Your task to perform on an android device: uninstall "Instagram" Image 0: 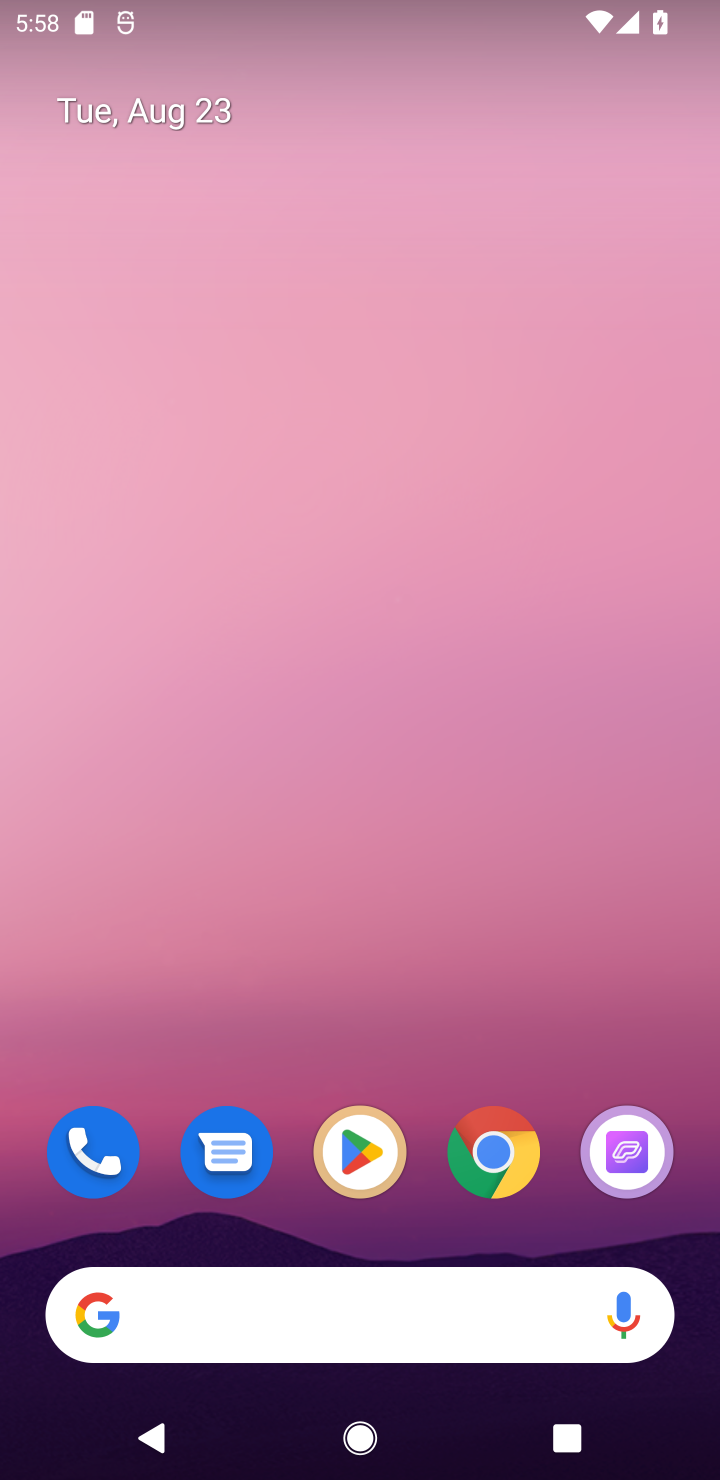
Step 0: click (362, 1150)
Your task to perform on an android device: uninstall "Instagram" Image 1: 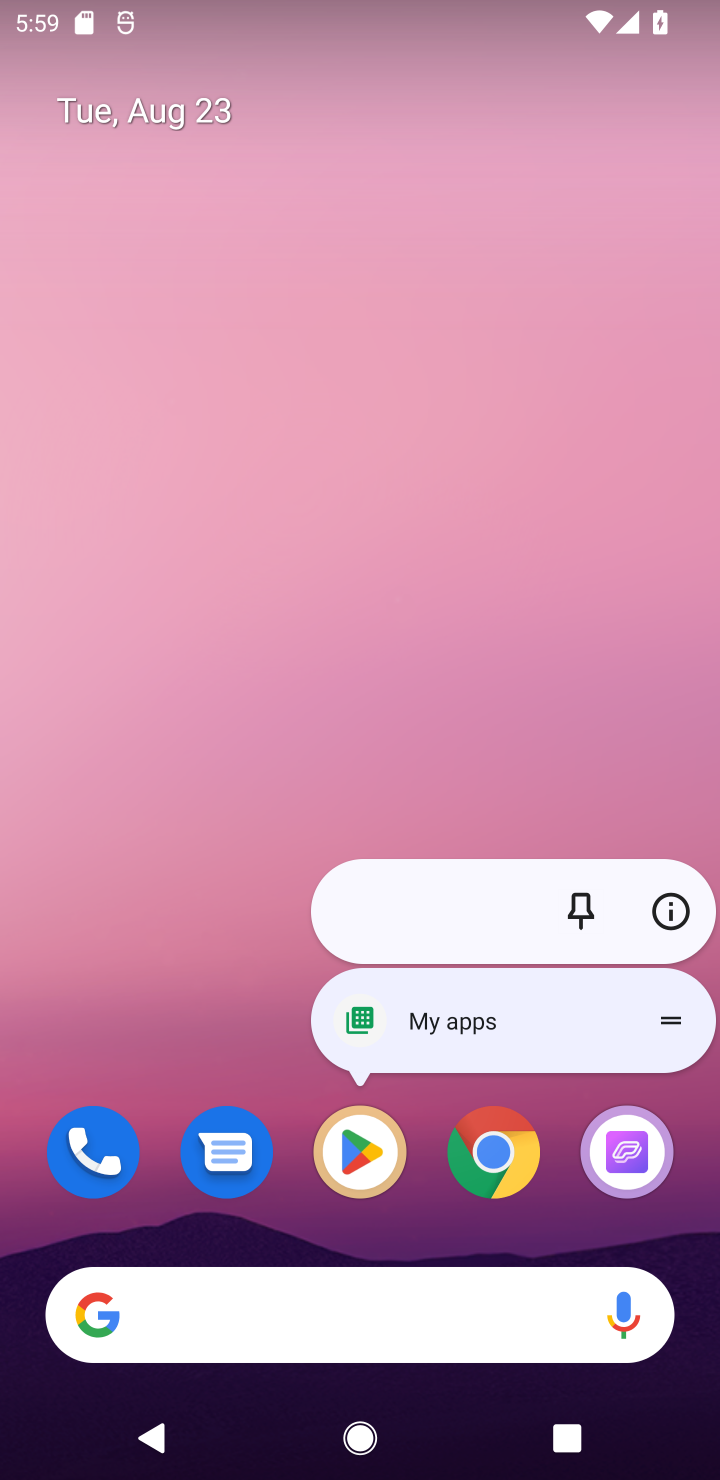
Step 1: click (368, 1166)
Your task to perform on an android device: uninstall "Instagram" Image 2: 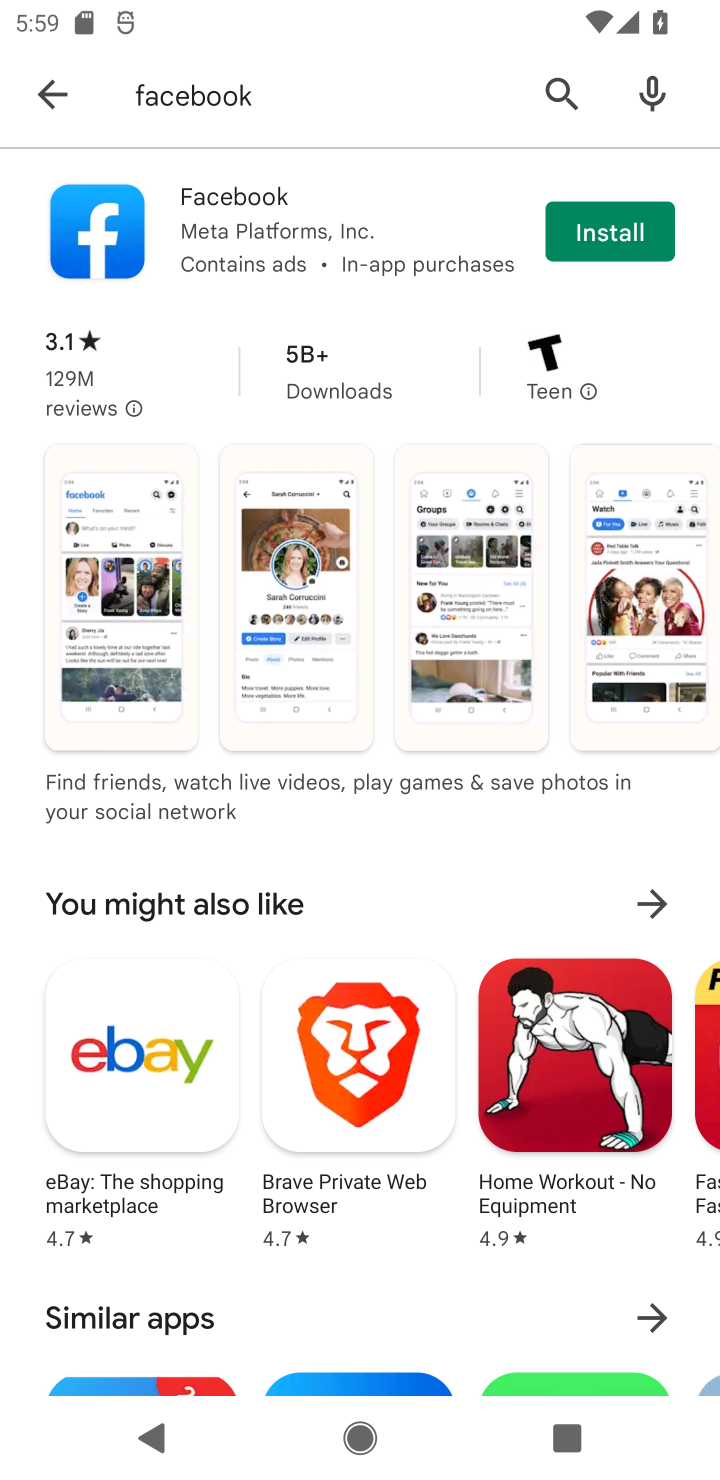
Step 2: click (559, 87)
Your task to perform on an android device: uninstall "Instagram" Image 3: 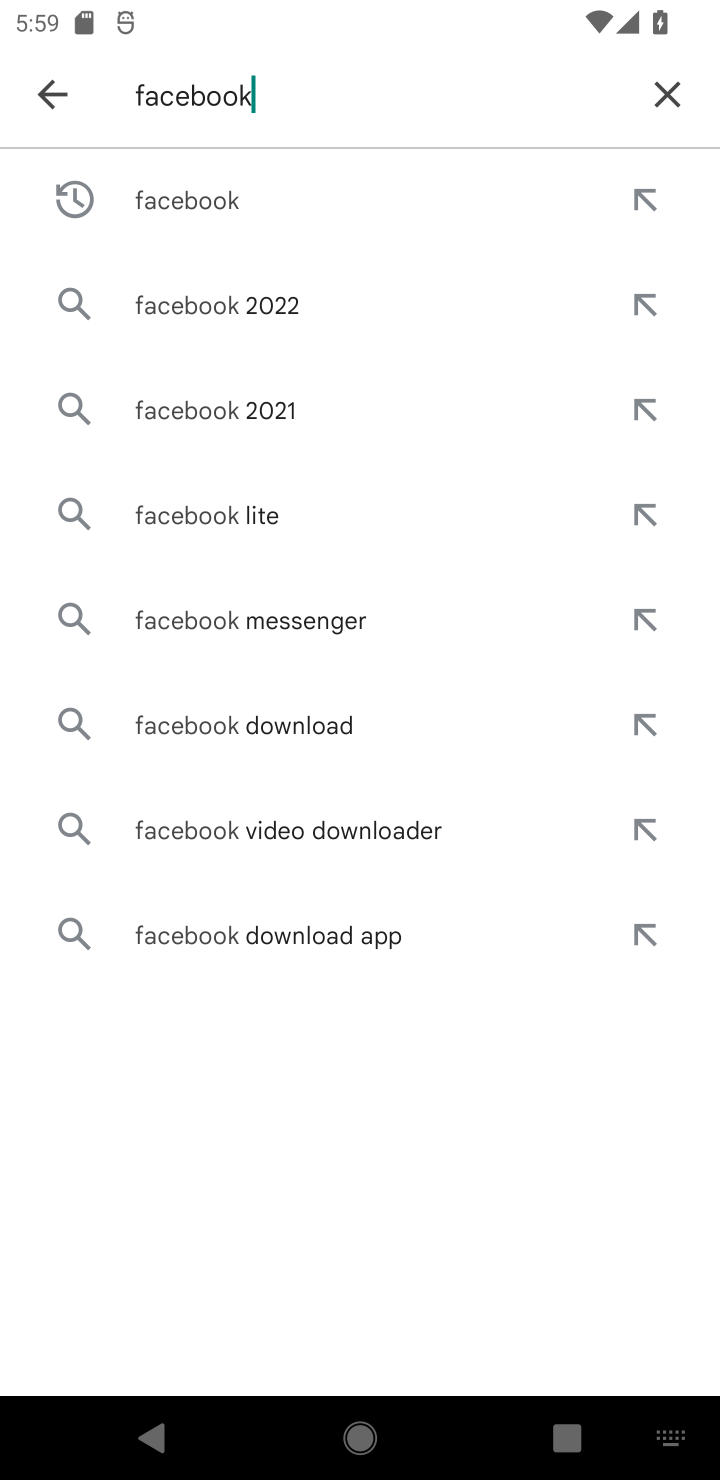
Step 3: click (673, 87)
Your task to perform on an android device: uninstall "Instagram" Image 4: 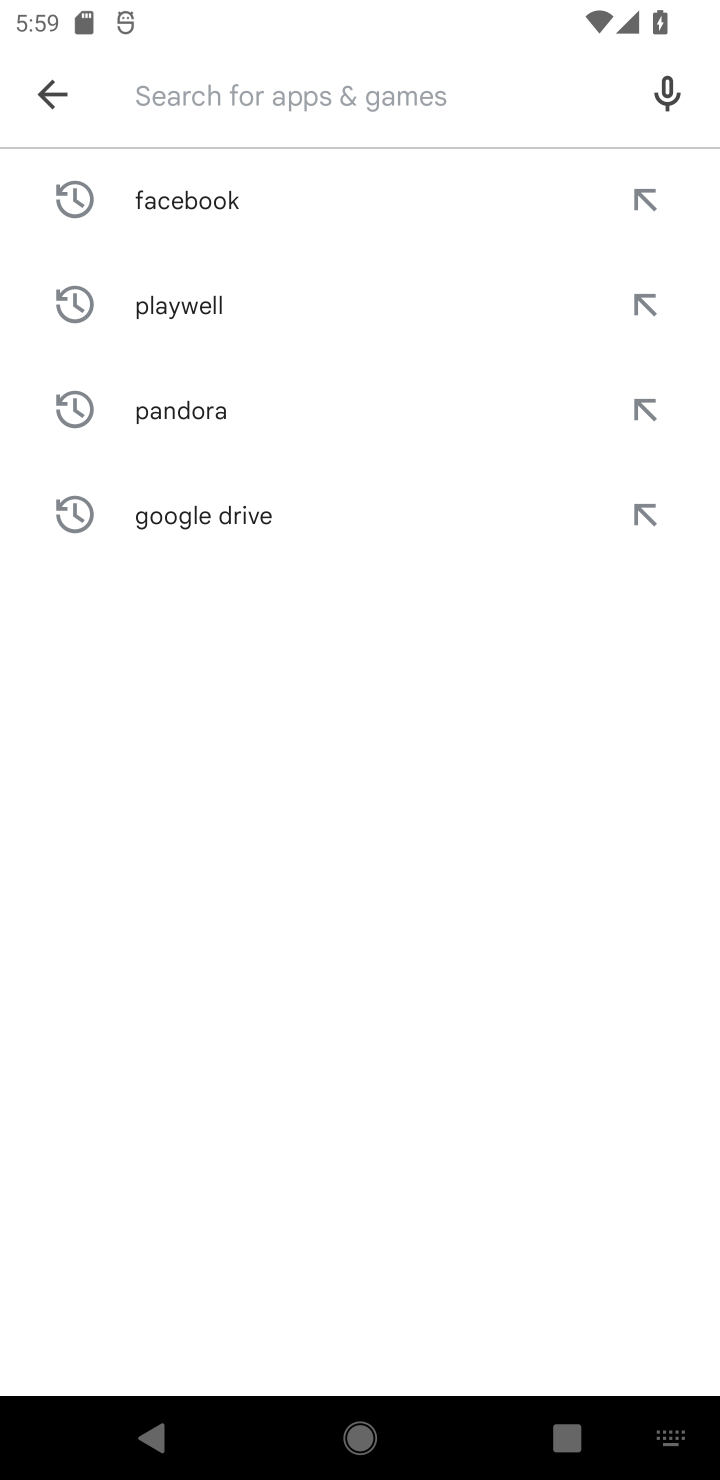
Step 4: click (298, 95)
Your task to perform on an android device: uninstall "Instagram" Image 5: 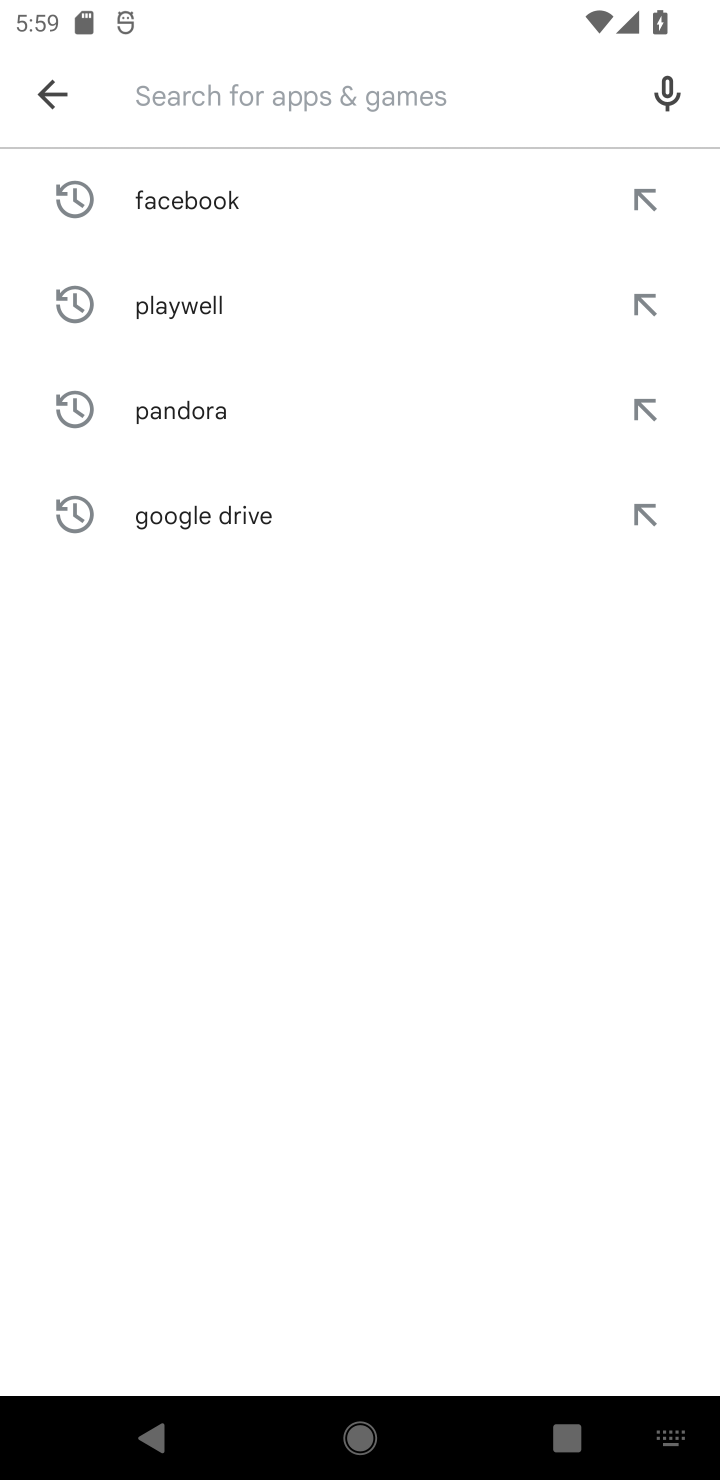
Step 5: type "instagram"
Your task to perform on an android device: uninstall "Instagram" Image 6: 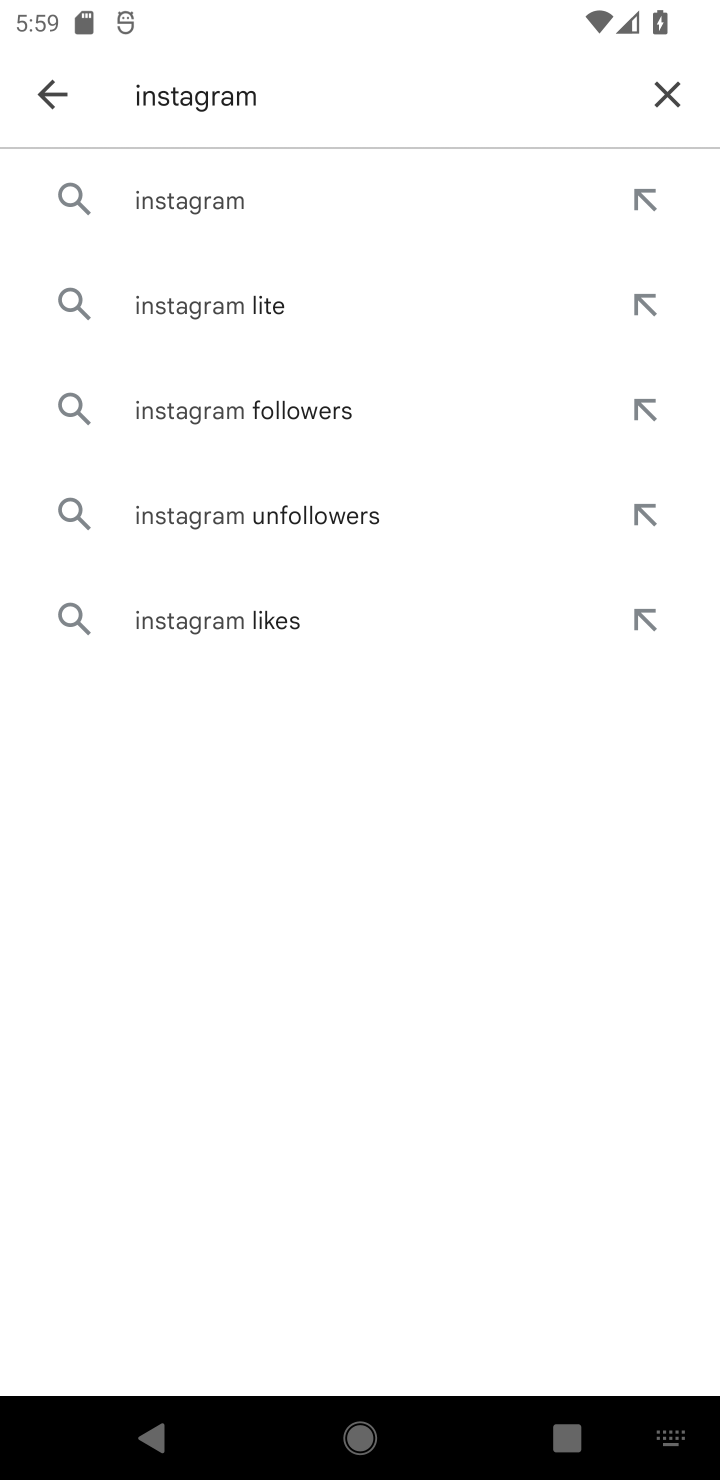
Step 6: click (174, 194)
Your task to perform on an android device: uninstall "Instagram" Image 7: 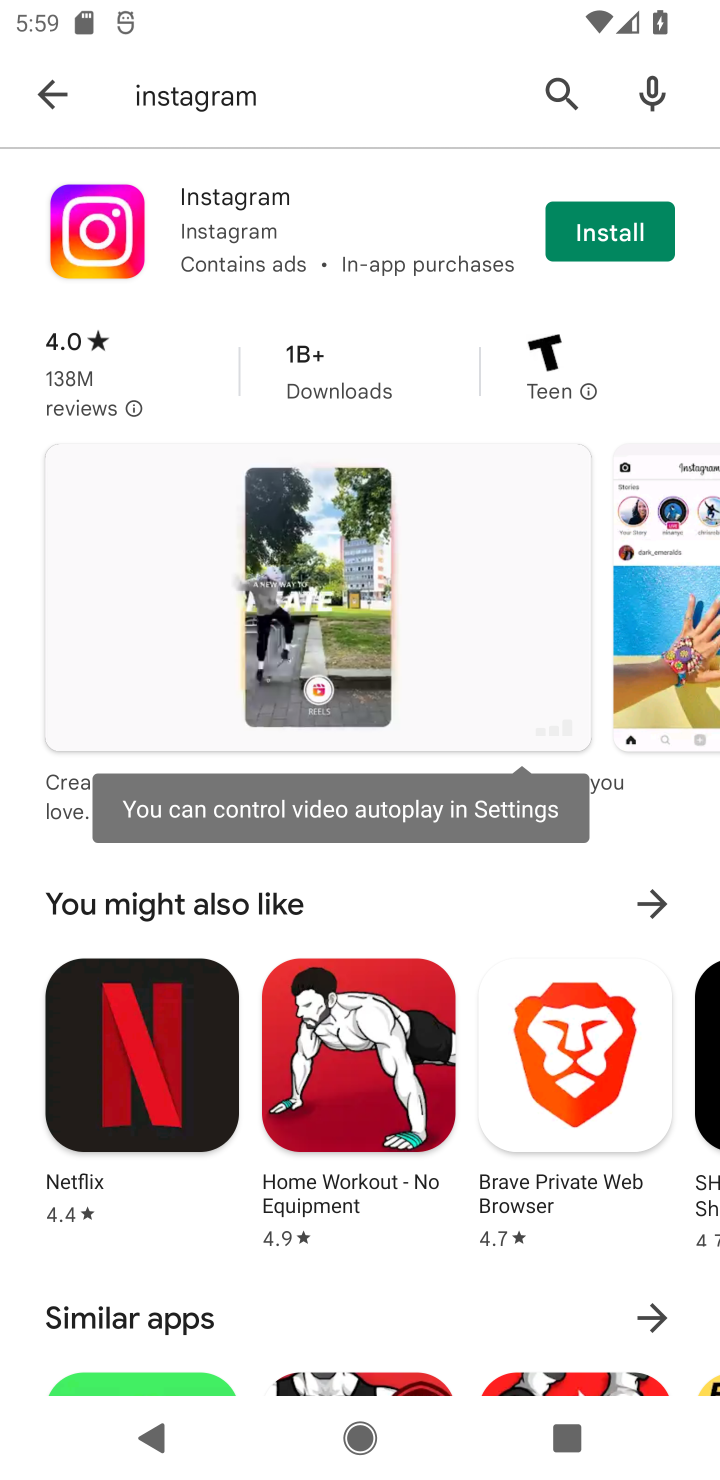
Step 7: task complete